Your task to perform on an android device: Add jbl flip 4 to the cart on amazon.com Image 0: 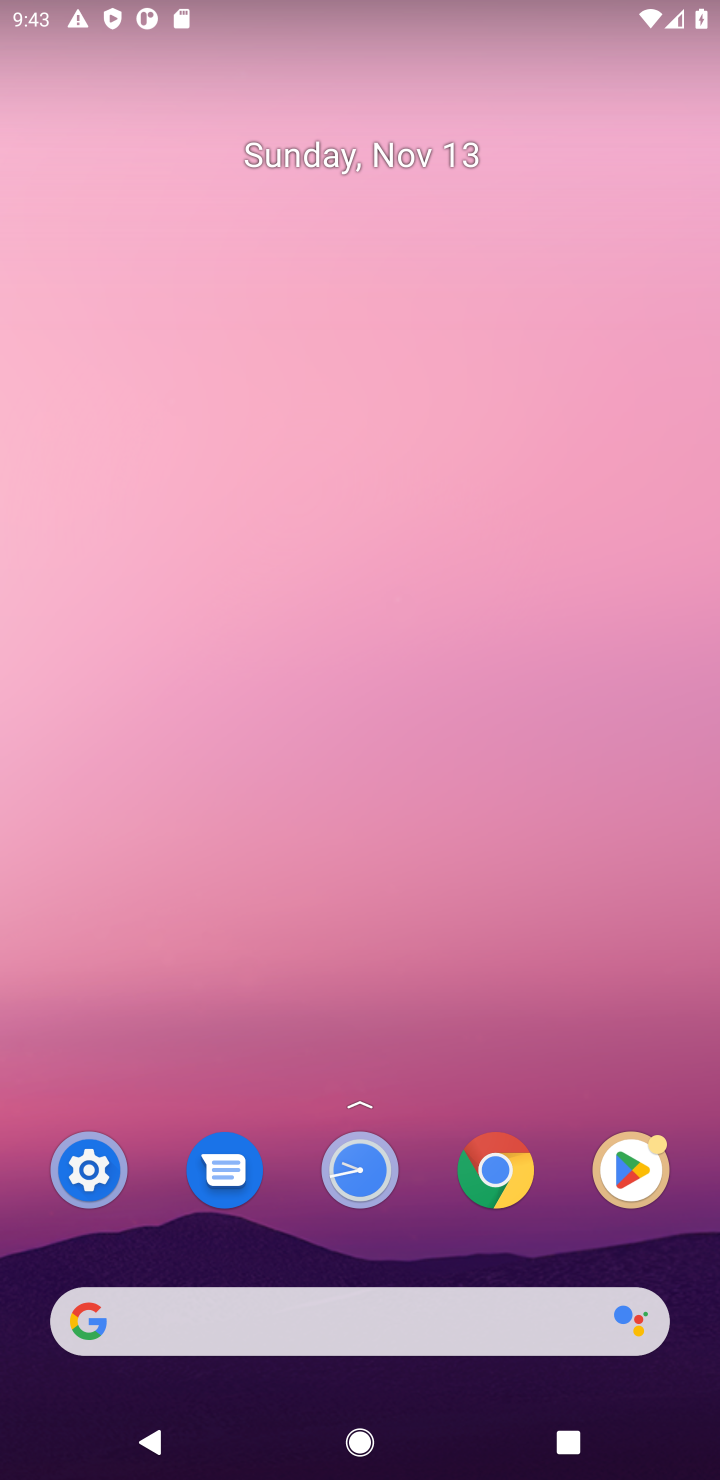
Step 0: click (342, 1346)
Your task to perform on an android device: Add jbl flip 4 to the cart on amazon.com Image 1: 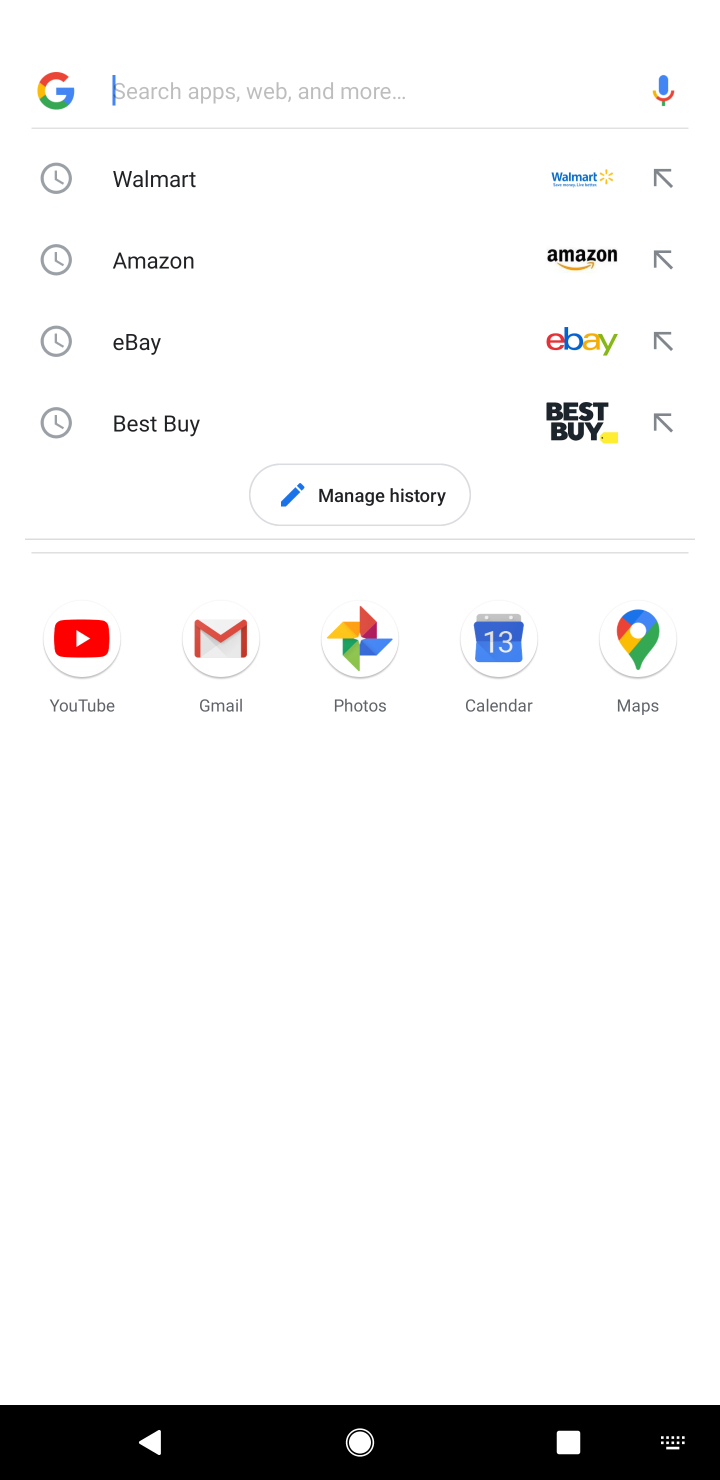
Step 1: click (245, 282)
Your task to perform on an android device: Add jbl flip 4 to the cart on amazon.com Image 2: 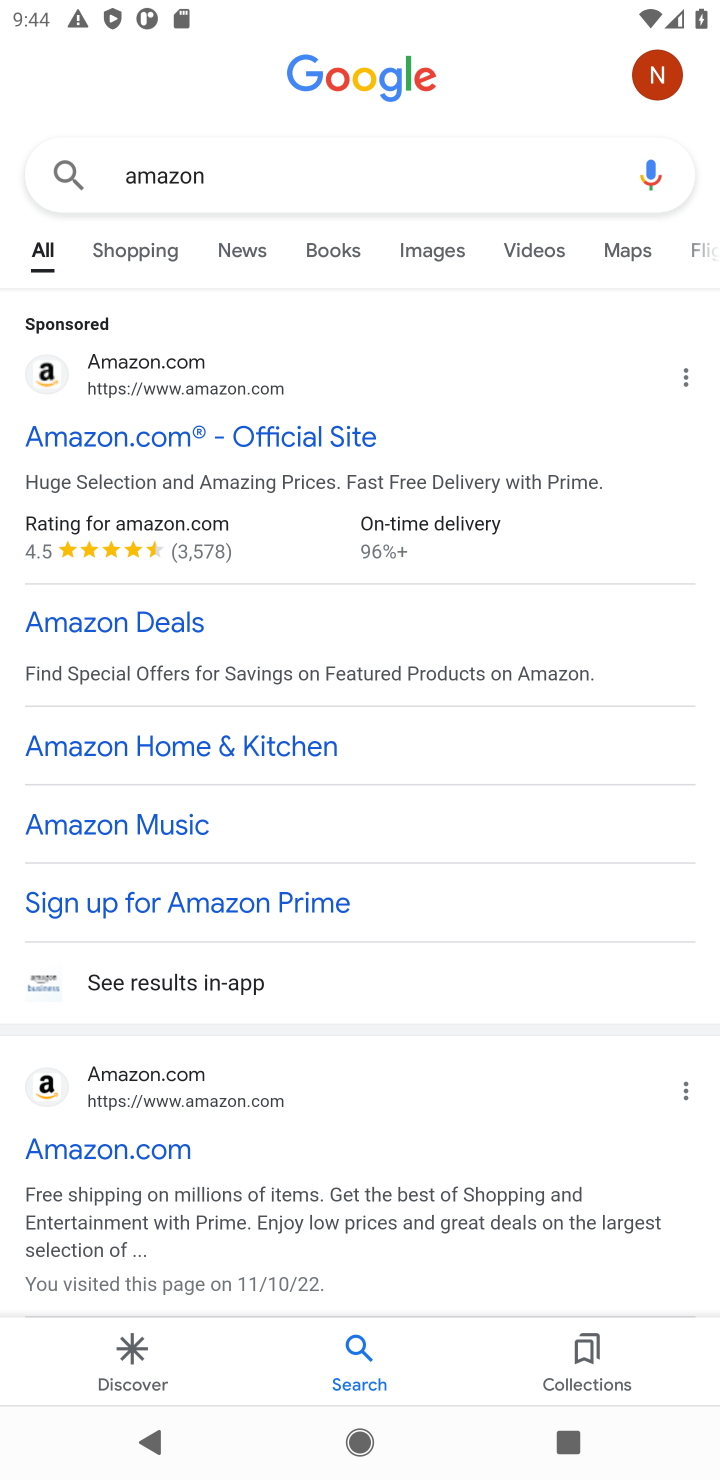
Step 2: click (166, 454)
Your task to perform on an android device: Add jbl flip 4 to the cart on amazon.com Image 3: 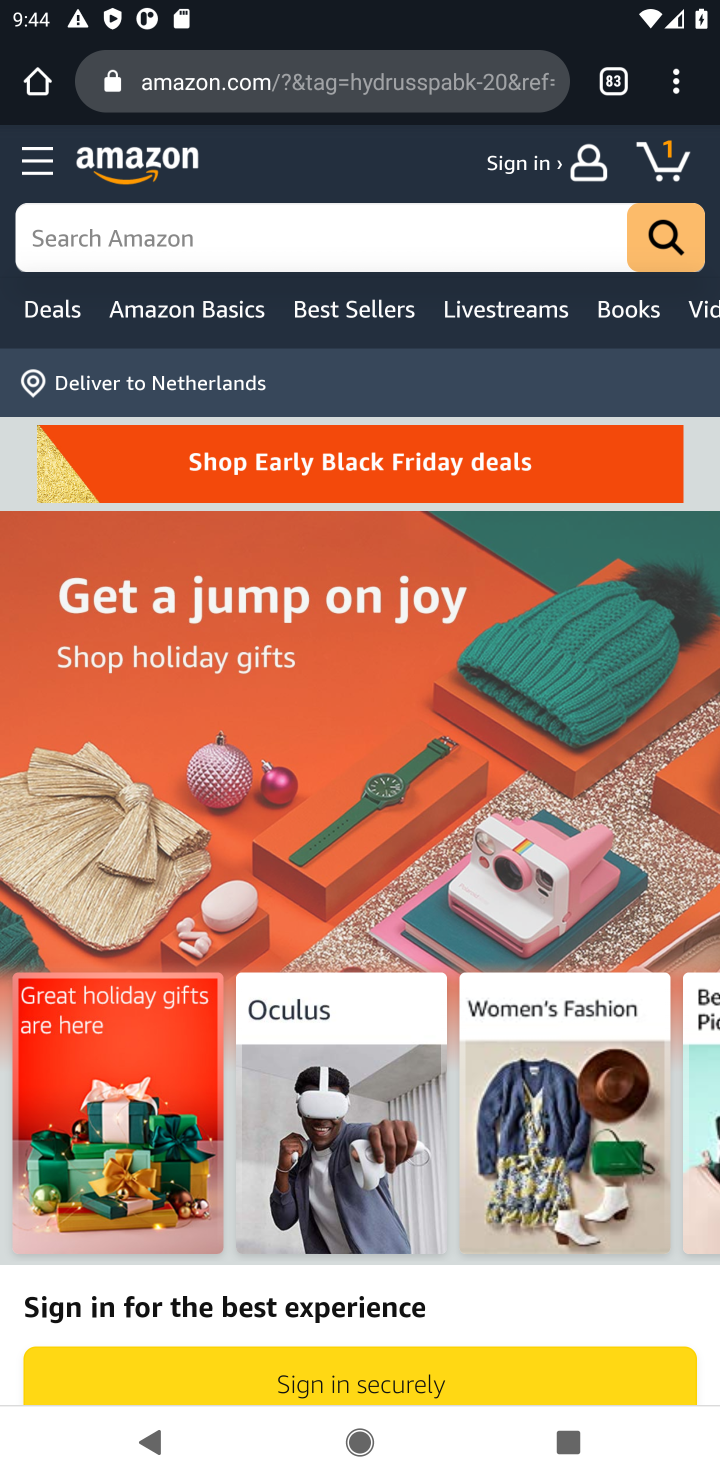
Step 3: click (197, 246)
Your task to perform on an android device: Add jbl flip 4 to the cart on amazon.com Image 4: 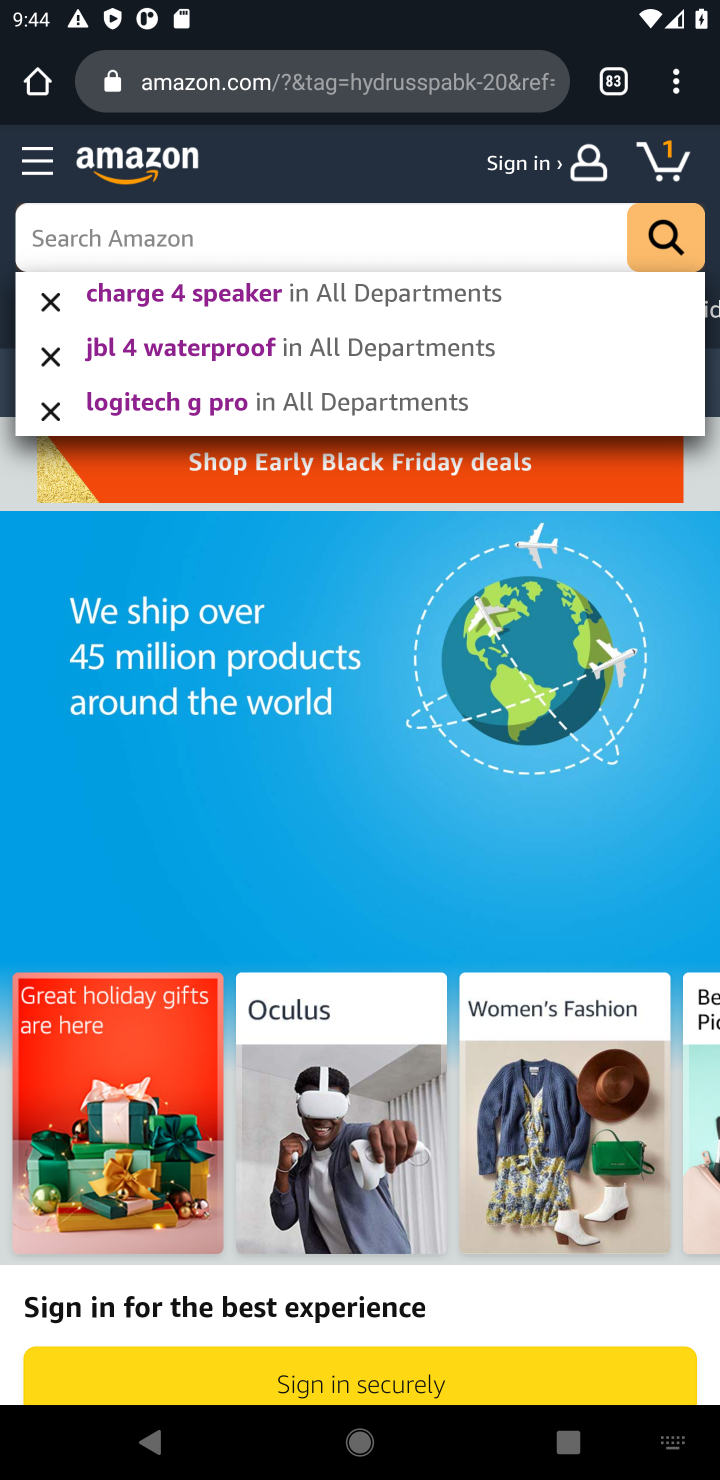
Step 4: type "amazon.com"
Your task to perform on an android device: Add jbl flip 4 to the cart on amazon.com Image 5: 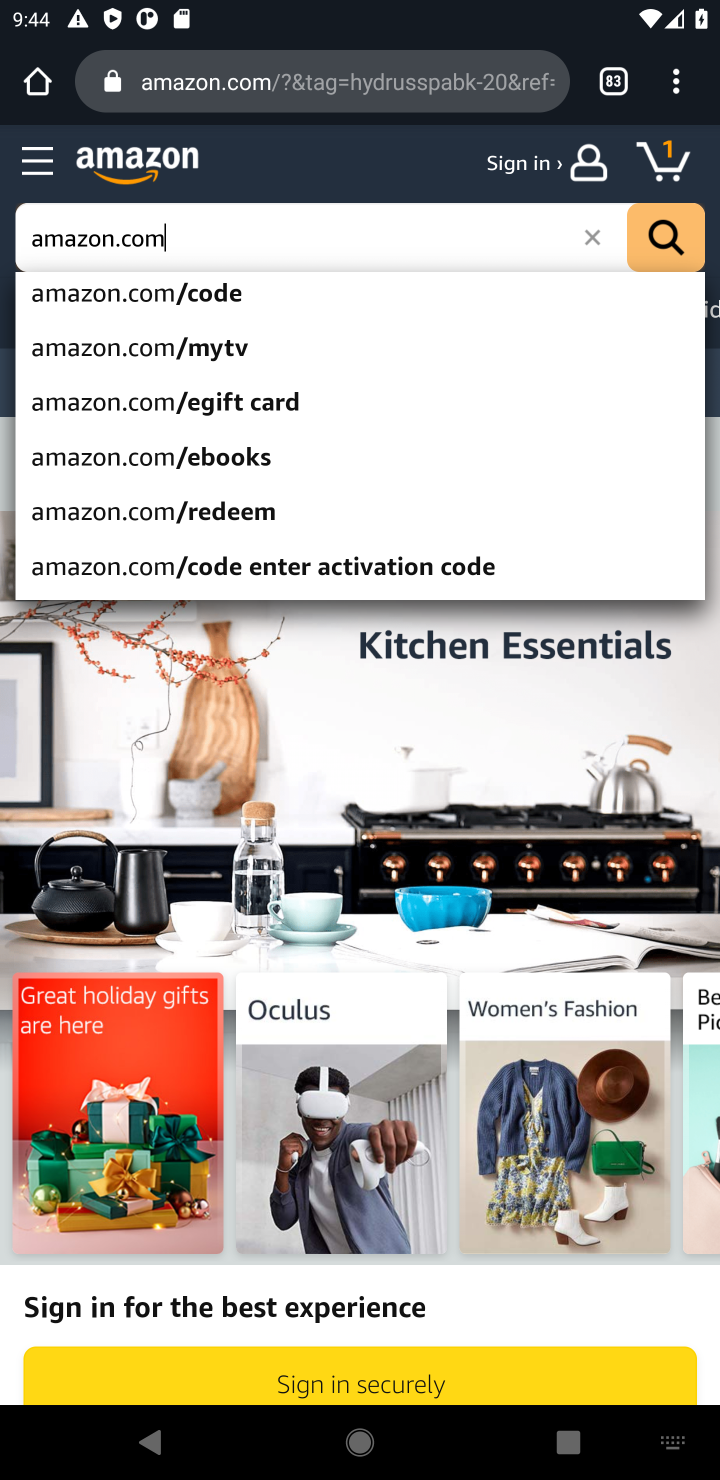
Step 5: click (259, 307)
Your task to perform on an android device: Add jbl flip 4 to the cart on amazon.com Image 6: 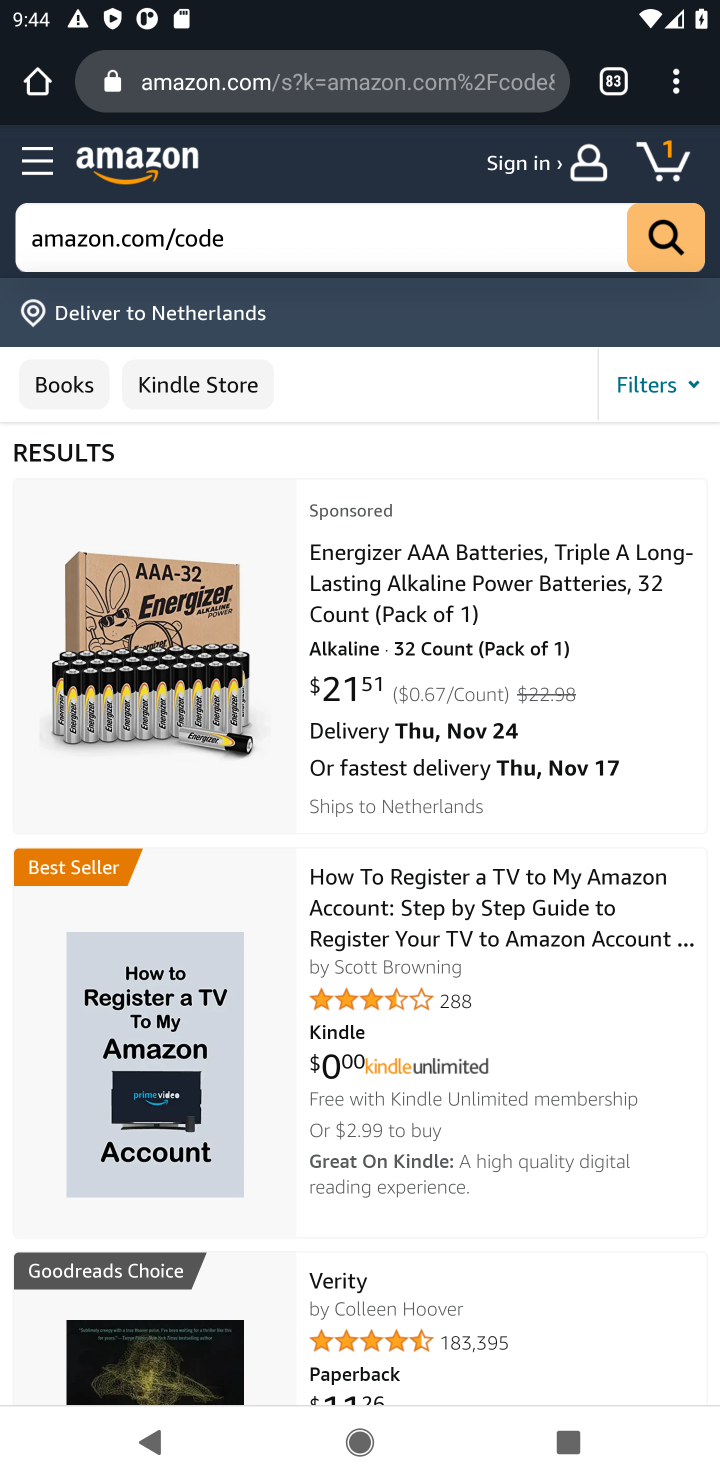
Step 6: task complete